Your task to perform on an android device: Clear all items from cart on costco. Add "dell xps" to the cart on costco Image 0: 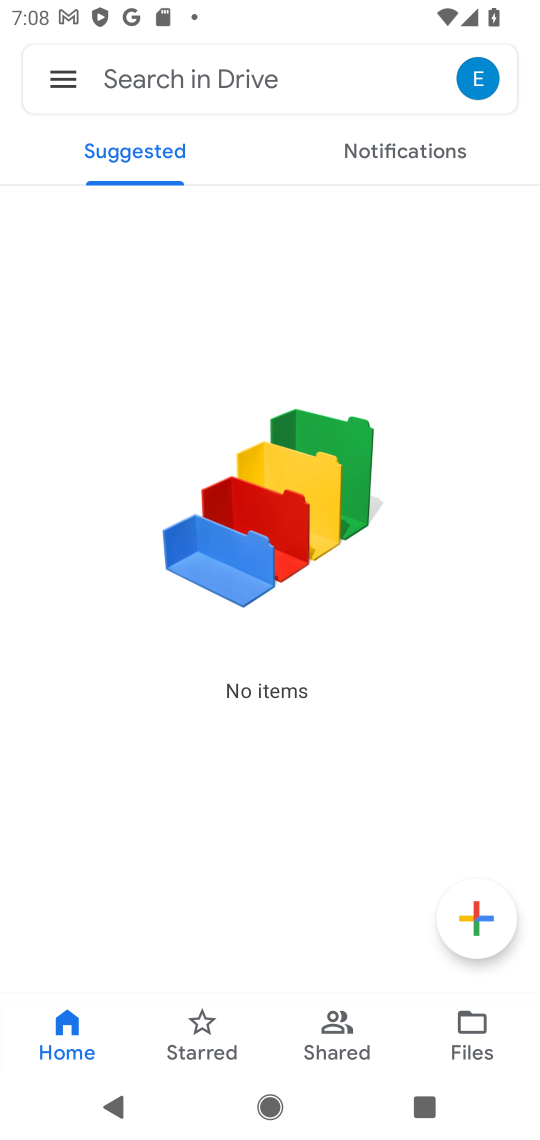
Step 0: press home button
Your task to perform on an android device: Clear all items from cart on costco. Add "dell xps" to the cart on costco Image 1: 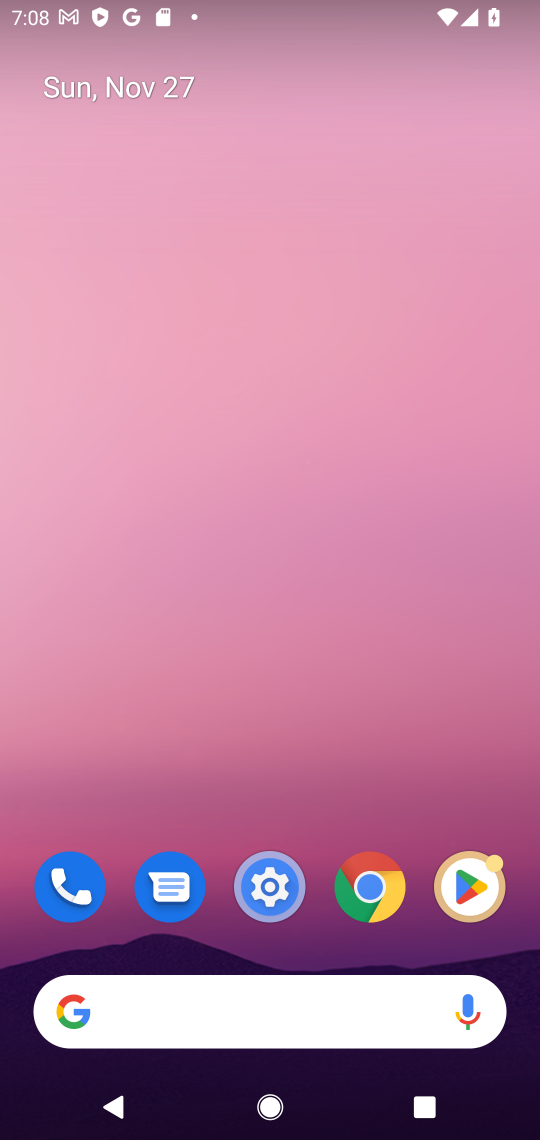
Step 1: click (364, 1004)
Your task to perform on an android device: Clear all items from cart on costco. Add "dell xps" to the cart on costco Image 2: 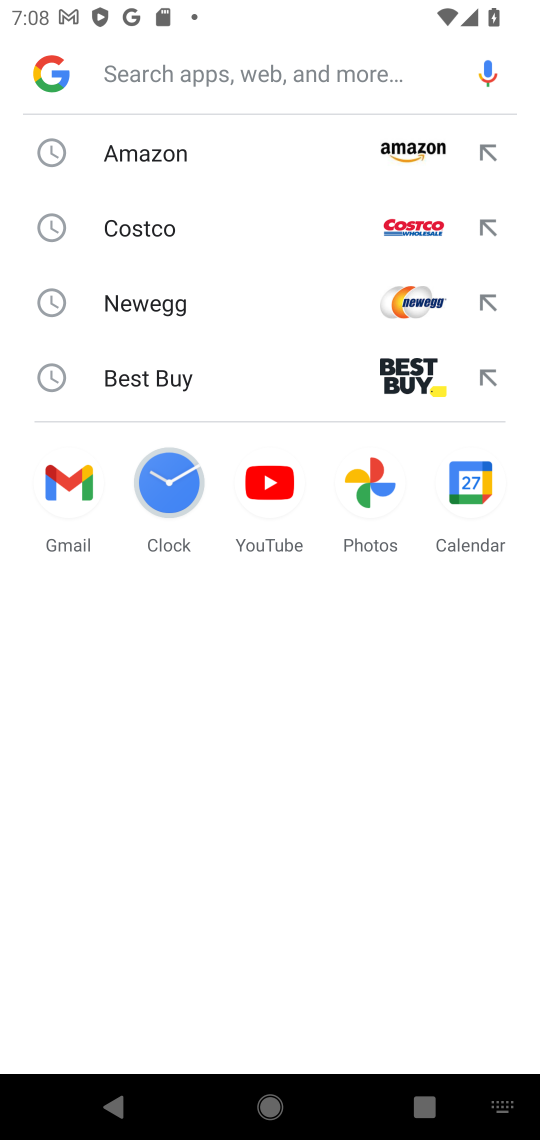
Step 2: click (291, 251)
Your task to perform on an android device: Clear all items from cart on costco. Add "dell xps" to the cart on costco Image 3: 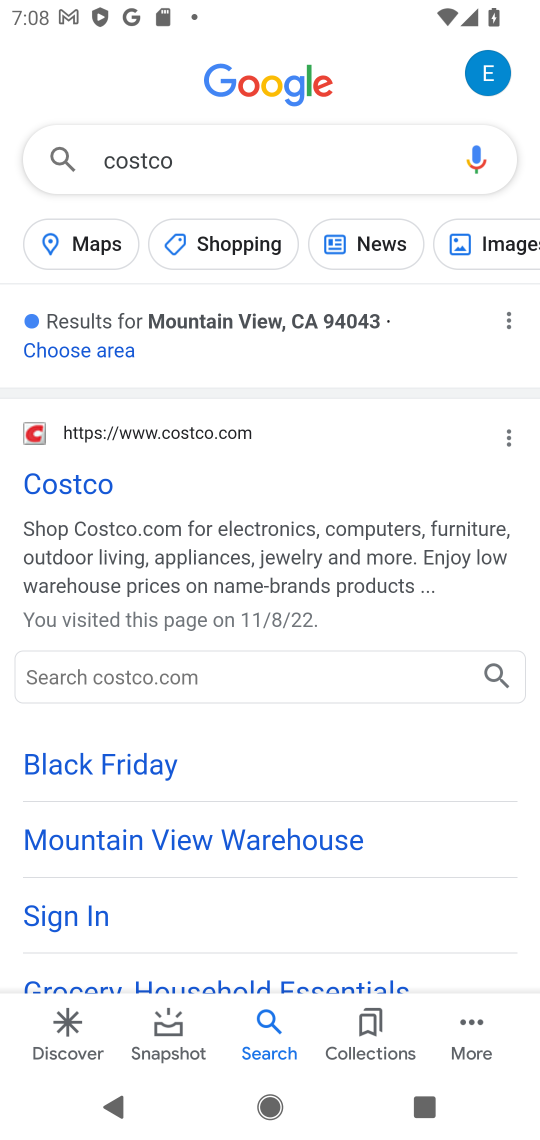
Step 3: click (70, 475)
Your task to perform on an android device: Clear all items from cart on costco. Add "dell xps" to the cart on costco Image 4: 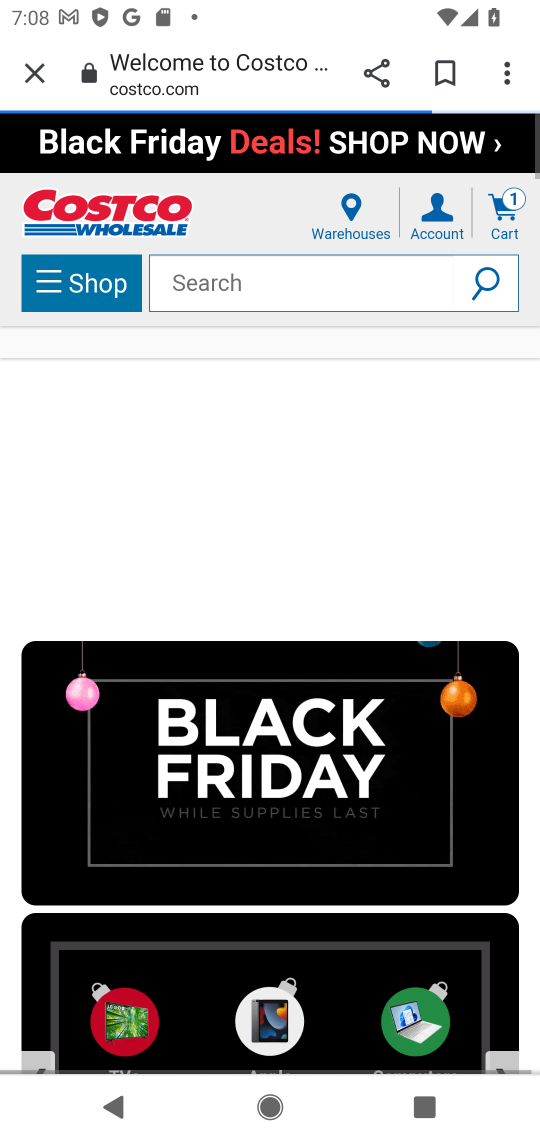
Step 4: click (238, 286)
Your task to perform on an android device: Clear all items from cart on costco. Add "dell xps" to the cart on costco Image 5: 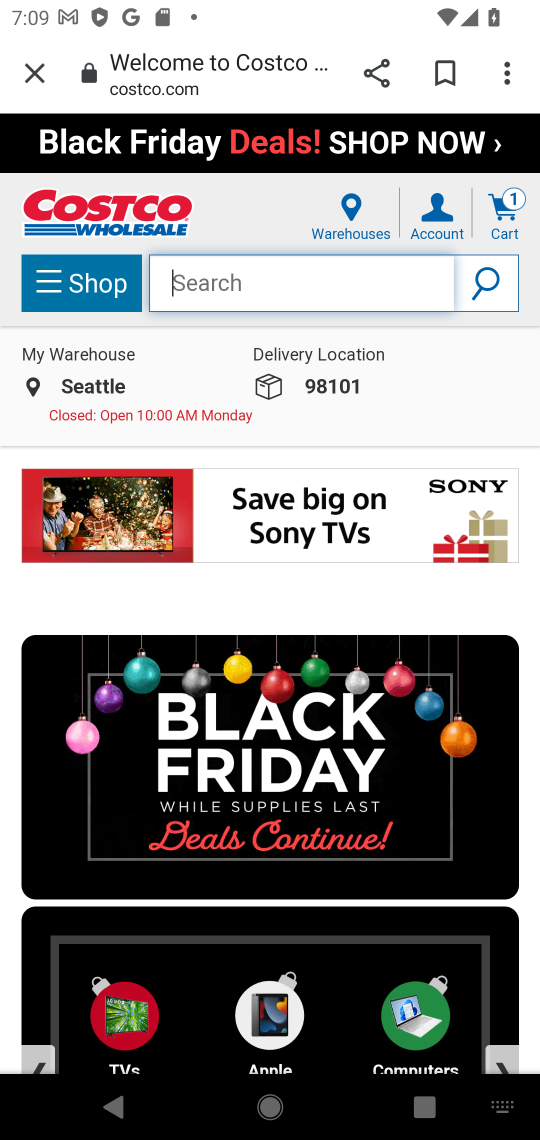
Step 5: type "dell xps"
Your task to perform on an android device: Clear all items from cart on costco. Add "dell xps" to the cart on costco Image 6: 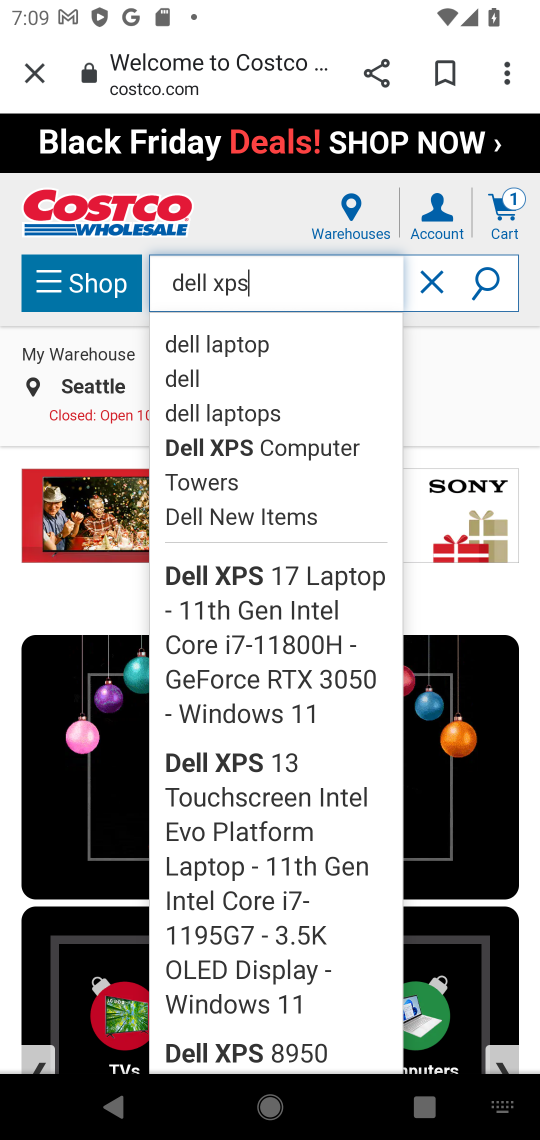
Step 6: click (474, 290)
Your task to perform on an android device: Clear all items from cart on costco. Add "dell xps" to the cart on costco Image 7: 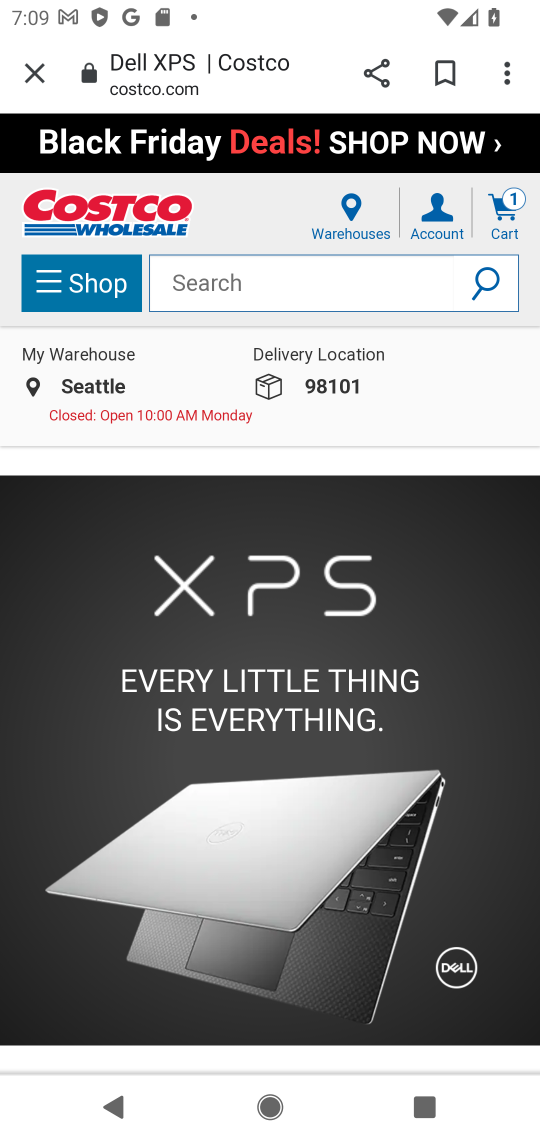
Step 7: task complete